Your task to perform on an android device: Go to ESPN.com Image 0: 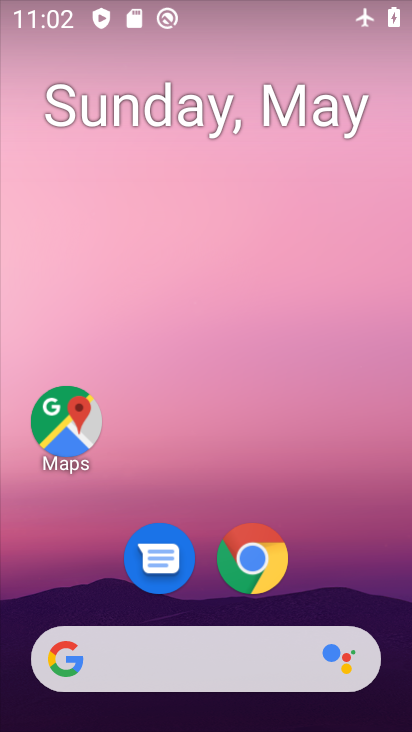
Step 0: drag from (376, 563) to (377, 139)
Your task to perform on an android device: Go to ESPN.com Image 1: 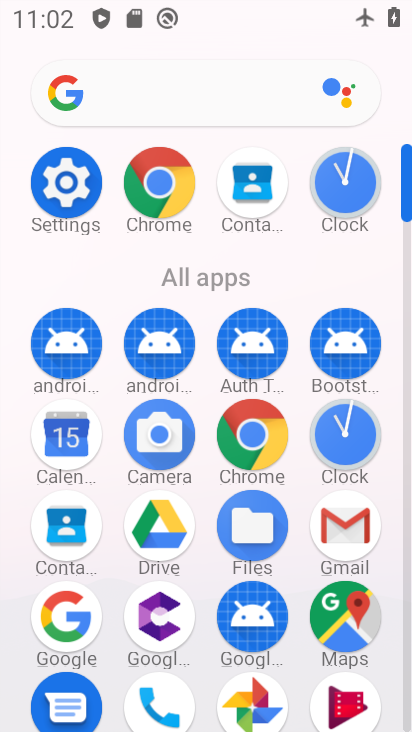
Step 1: click (265, 445)
Your task to perform on an android device: Go to ESPN.com Image 2: 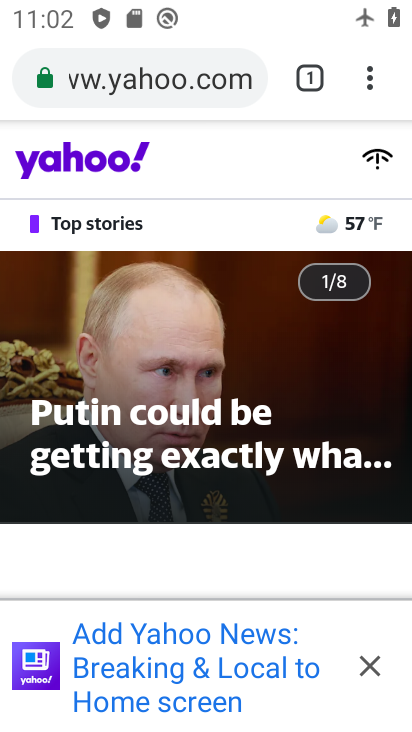
Step 2: click (217, 80)
Your task to perform on an android device: Go to ESPN.com Image 3: 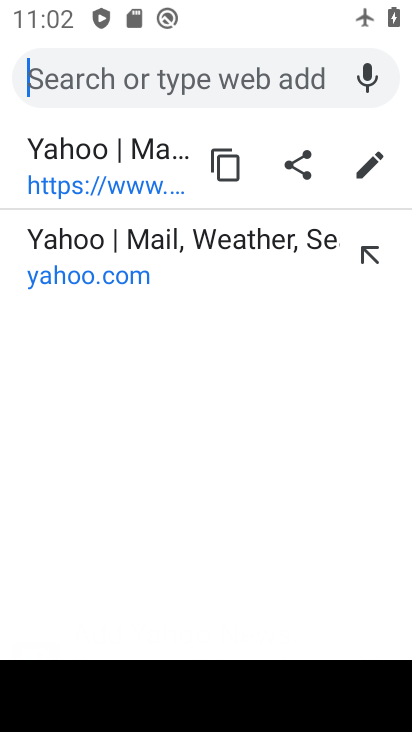
Step 3: type "espn"
Your task to perform on an android device: Go to ESPN.com Image 4: 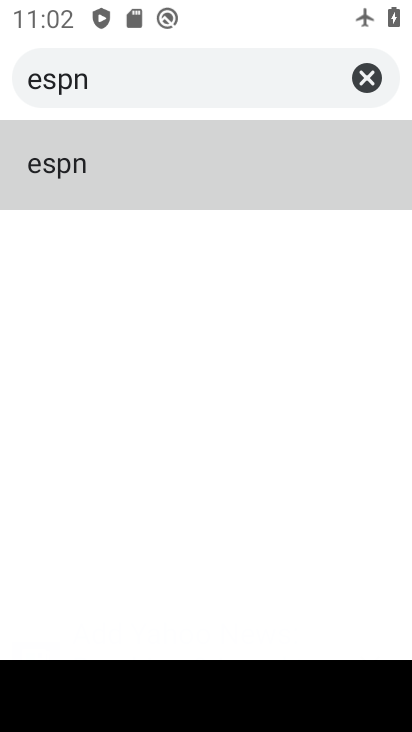
Step 4: click (130, 171)
Your task to perform on an android device: Go to ESPN.com Image 5: 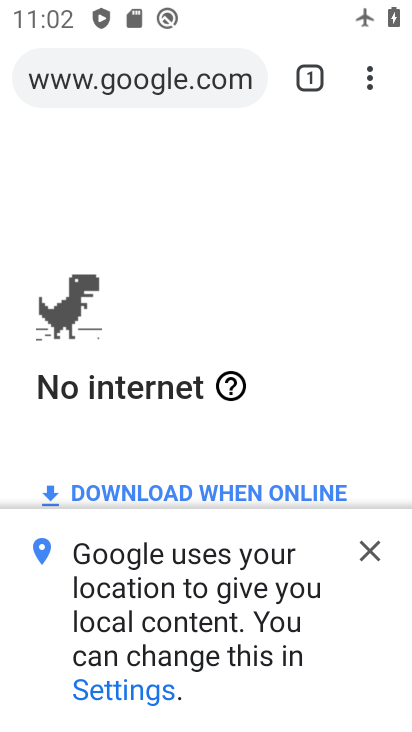
Step 5: task complete